Your task to perform on an android device: turn on notifications settings in the gmail app Image 0: 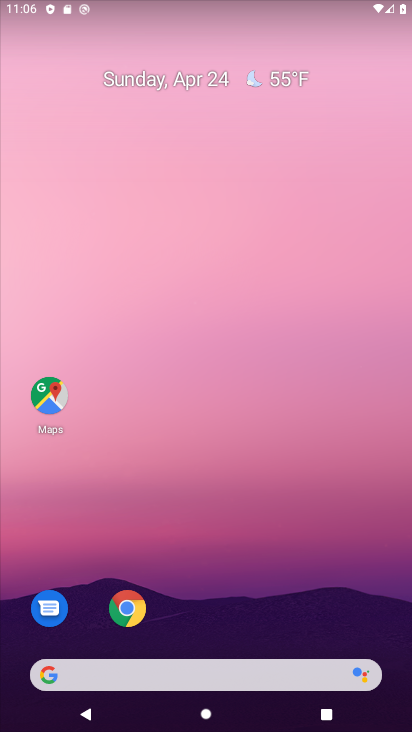
Step 0: click (136, 599)
Your task to perform on an android device: turn on notifications settings in the gmail app Image 1: 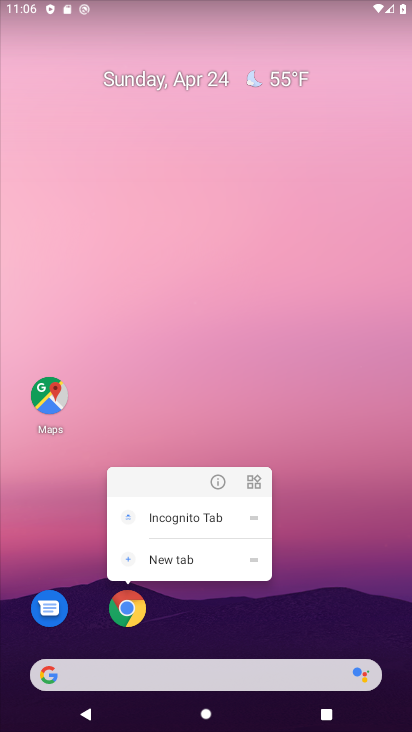
Step 1: click (371, 604)
Your task to perform on an android device: turn on notifications settings in the gmail app Image 2: 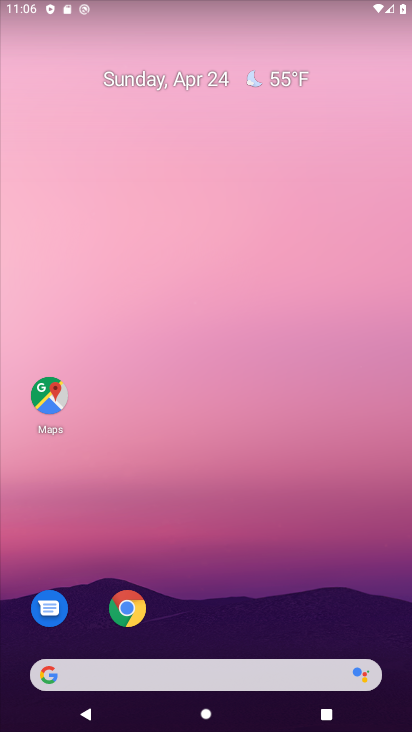
Step 2: drag from (237, 512) to (326, 2)
Your task to perform on an android device: turn on notifications settings in the gmail app Image 3: 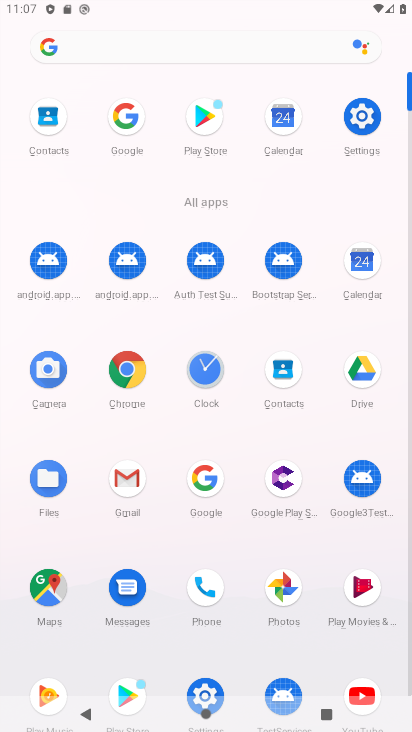
Step 3: click (125, 474)
Your task to perform on an android device: turn on notifications settings in the gmail app Image 4: 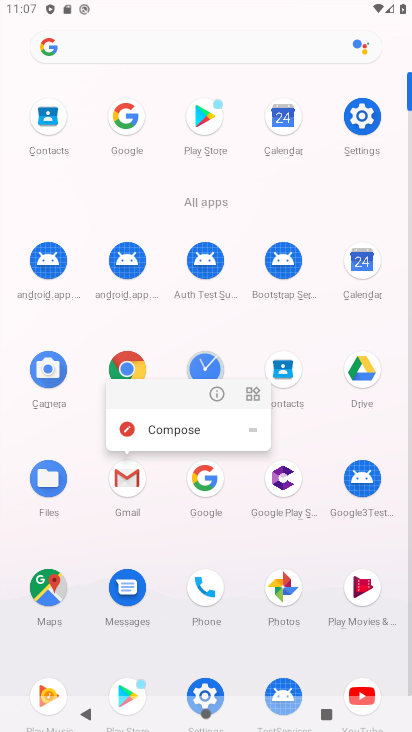
Step 4: click (225, 400)
Your task to perform on an android device: turn on notifications settings in the gmail app Image 5: 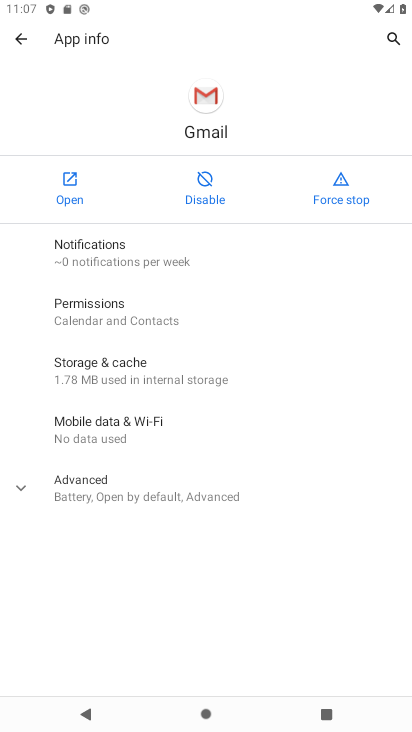
Step 5: click (145, 256)
Your task to perform on an android device: turn on notifications settings in the gmail app Image 6: 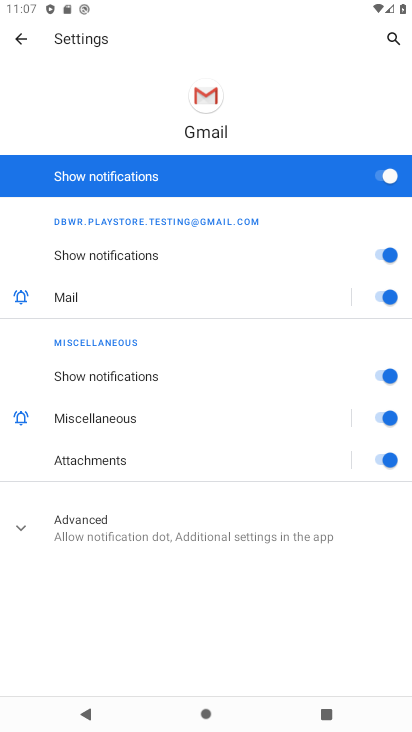
Step 6: task complete